Your task to perform on an android device: turn off wifi Image 0: 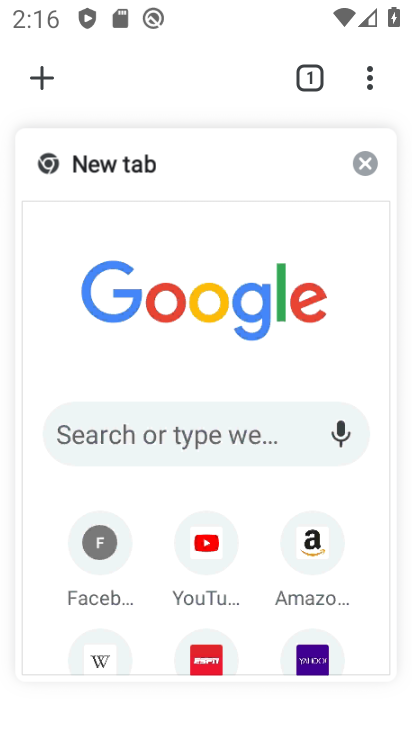
Step 0: press home button
Your task to perform on an android device: turn off wifi Image 1: 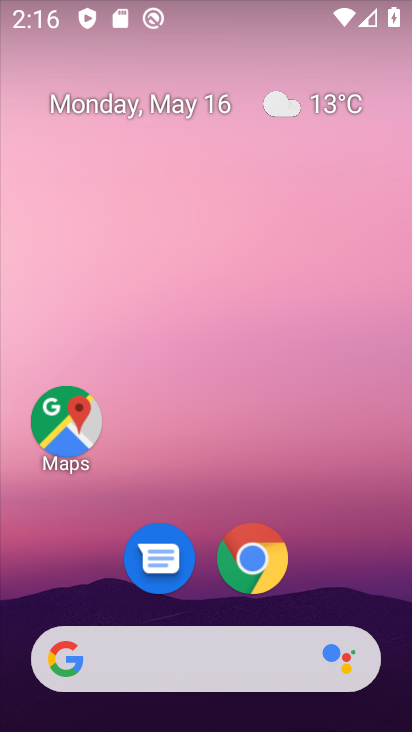
Step 1: drag from (201, 605) to (160, 12)
Your task to perform on an android device: turn off wifi Image 2: 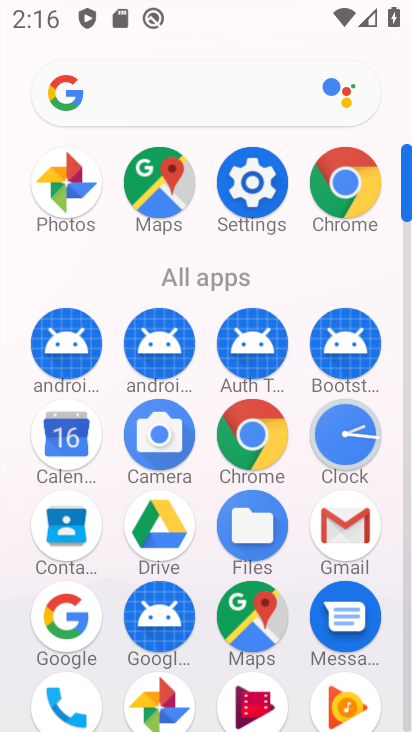
Step 2: click (266, 183)
Your task to perform on an android device: turn off wifi Image 3: 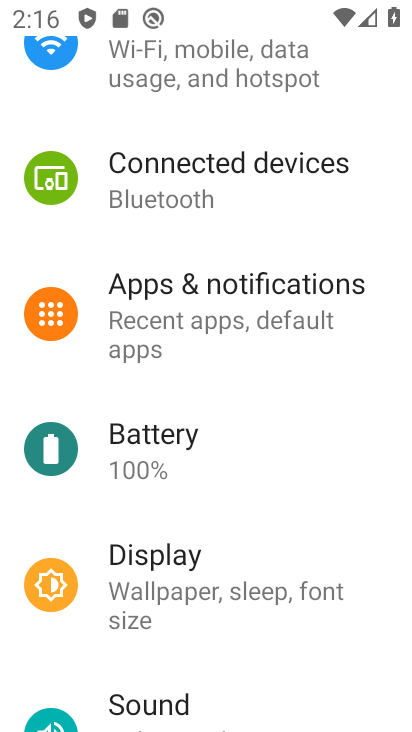
Step 3: click (171, 77)
Your task to perform on an android device: turn off wifi Image 4: 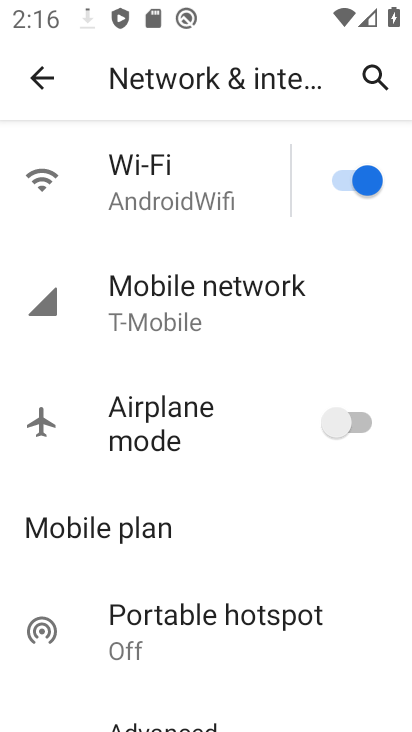
Step 4: click (353, 175)
Your task to perform on an android device: turn off wifi Image 5: 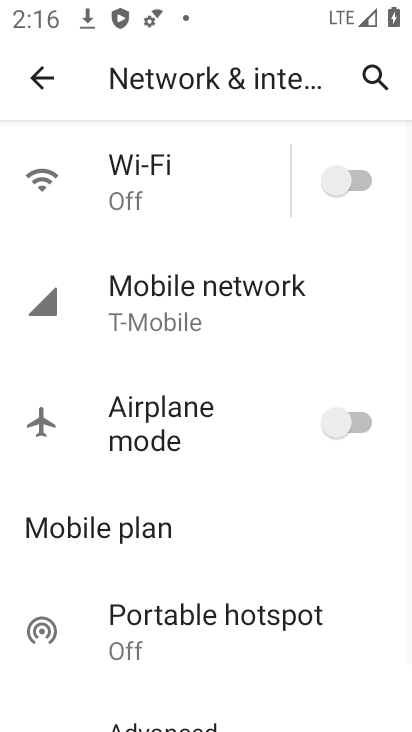
Step 5: task complete